Your task to perform on an android device: check out phone information Image 0: 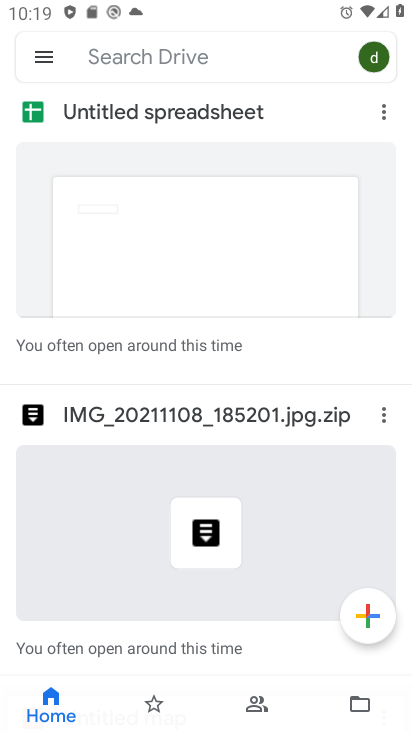
Step 0: press home button
Your task to perform on an android device: check out phone information Image 1: 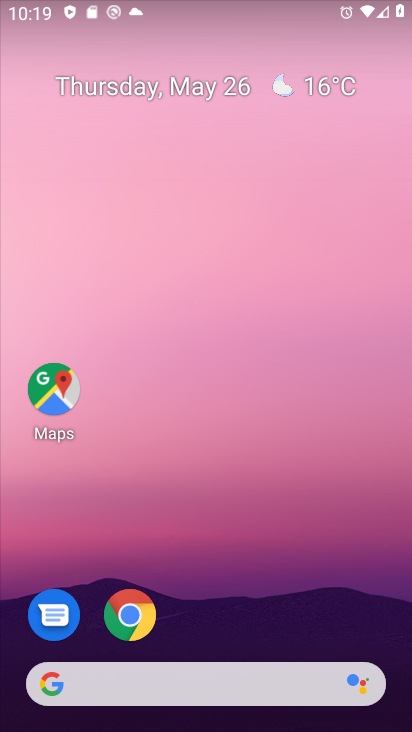
Step 1: drag from (217, 710) to (210, 355)
Your task to perform on an android device: check out phone information Image 2: 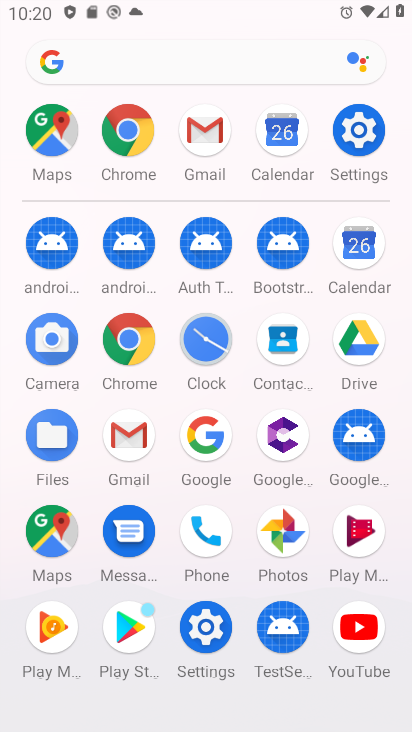
Step 2: click (341, 161)
Your task to perform on an android device: check out phone information Image 3: 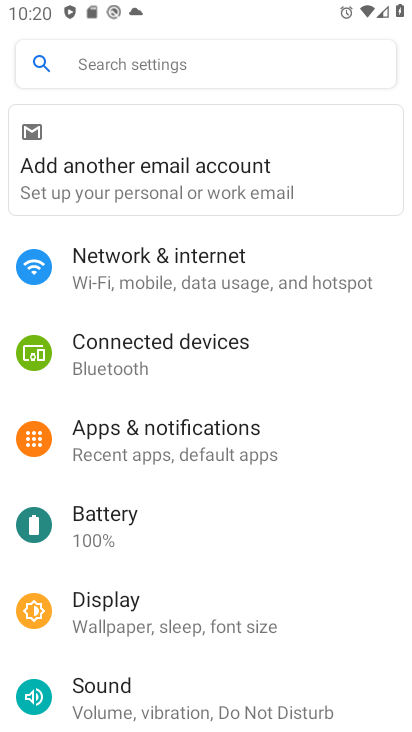
Step 3: click (175, 65)
Your task to perform on an android device: check out phone information Image 4: 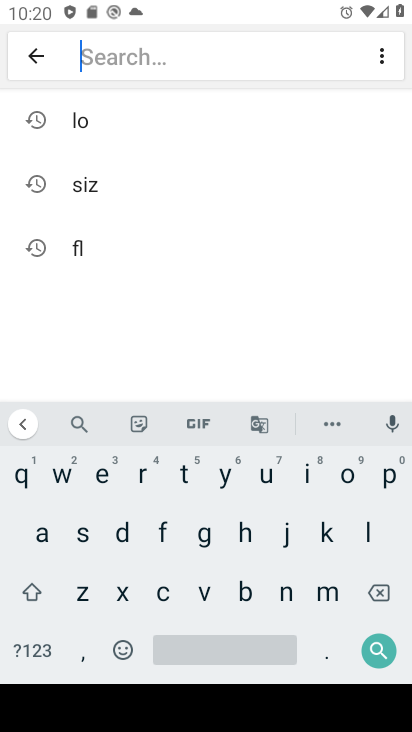
Step 4: click (40, 531)
Your task to perform on an android device: check out phone information Image 5: 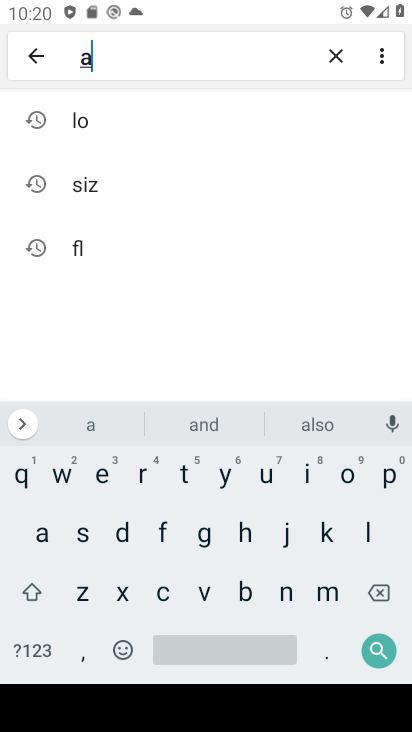
Step 5: click (247, 593)
Your task to perform on an android device: check out phone information Image 6: 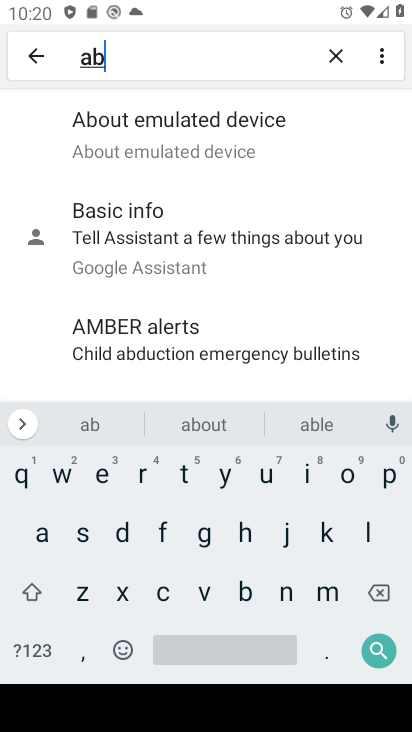
Step 6: click (193, 140)
Your task to perform on an android device: check out phone information Image 7: 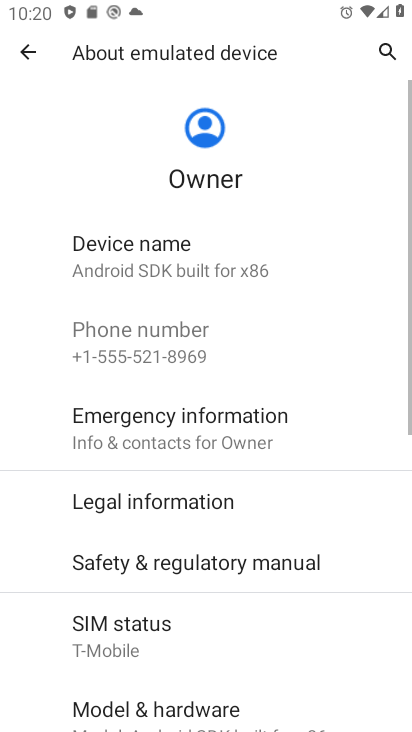
Step 7: task complete